Your task to perform on an android device: What is the news today? Image 0: 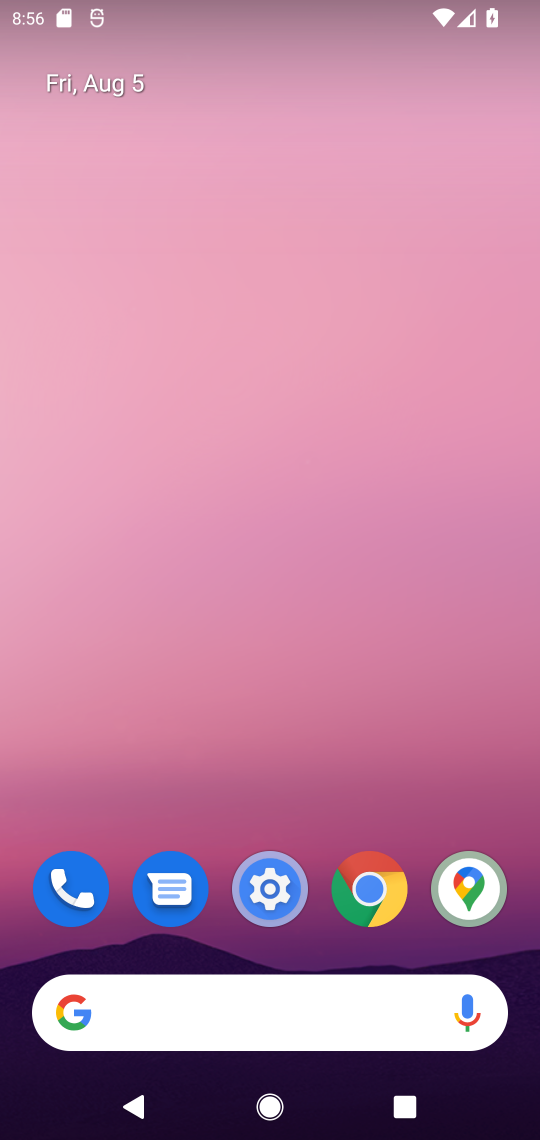
Step 0: drag from (215, 794) to (247, 113)
Your task to perform on an android device: What is the news today? Image 1: 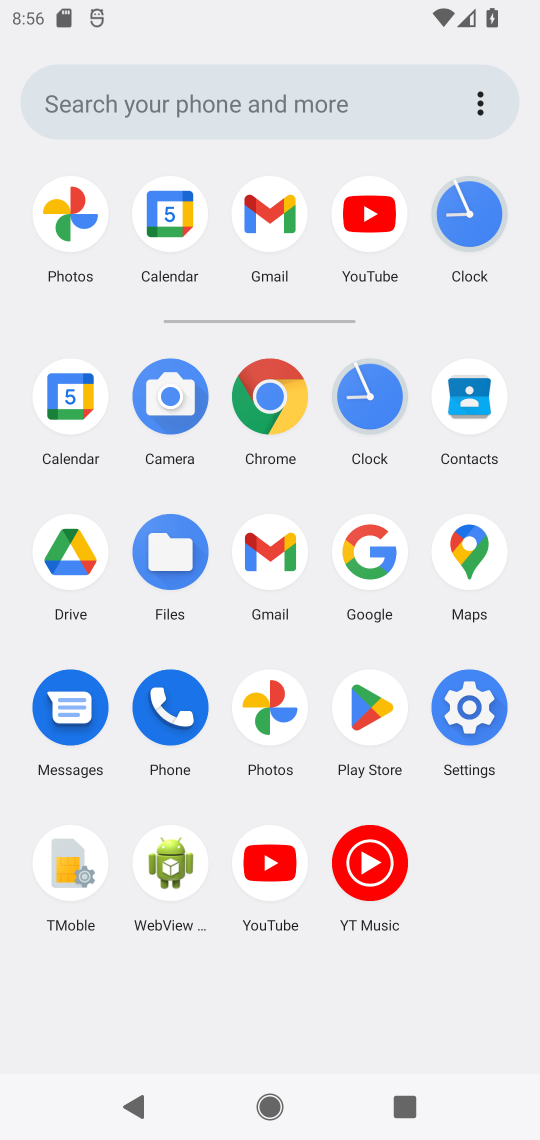
Step 1: click (251, 381)
Your task to perform on an android device: What is the news today? Image 2: 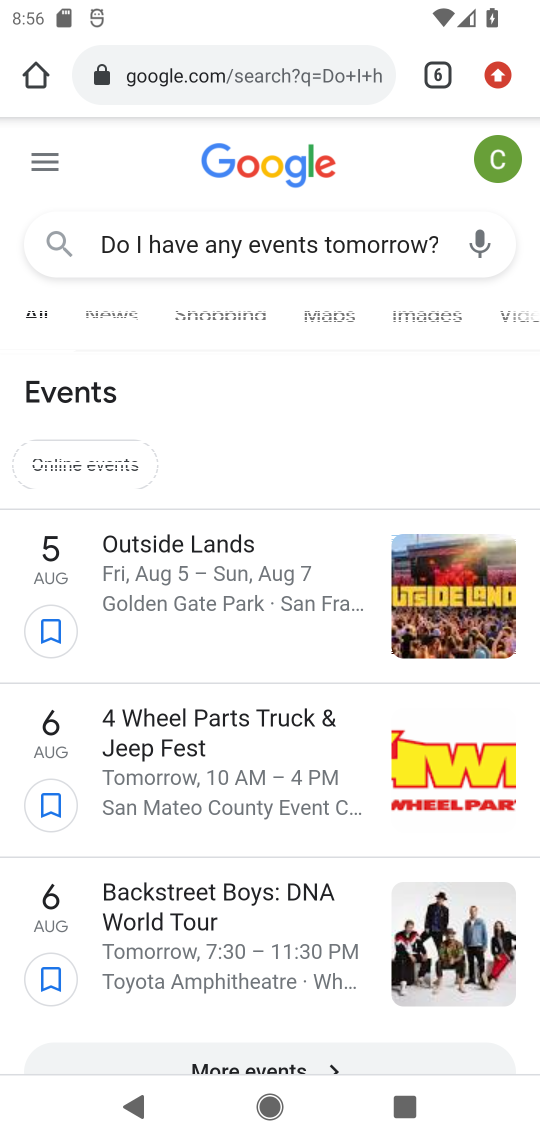
Step 2: click (510, 69)
Your task to perform on an android device: What is the news today? Image 3: 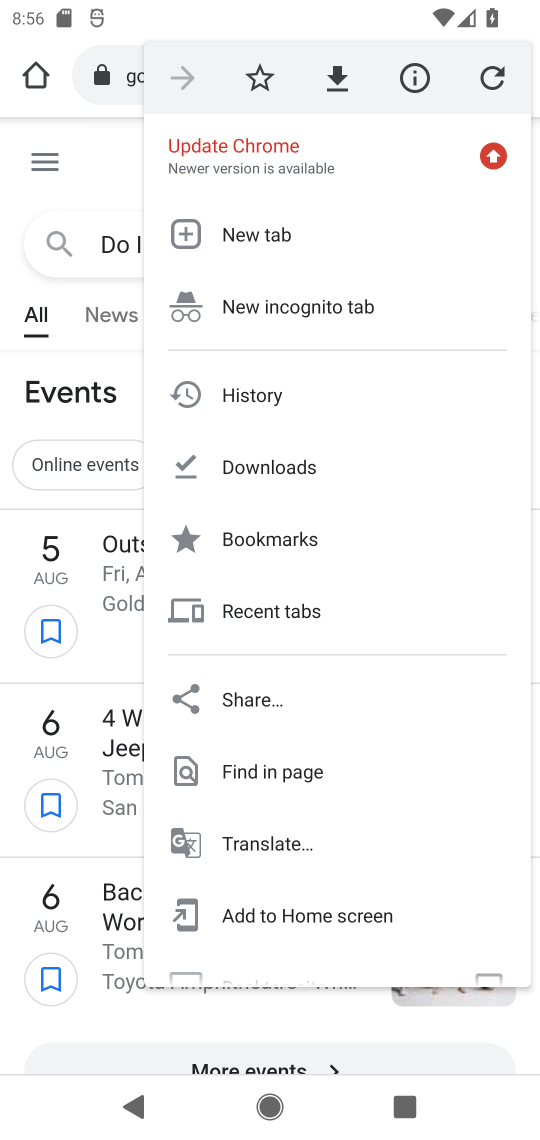
Step 3: click (263, 240)
Your task to perform on an android device: What is the news today? Image 4: 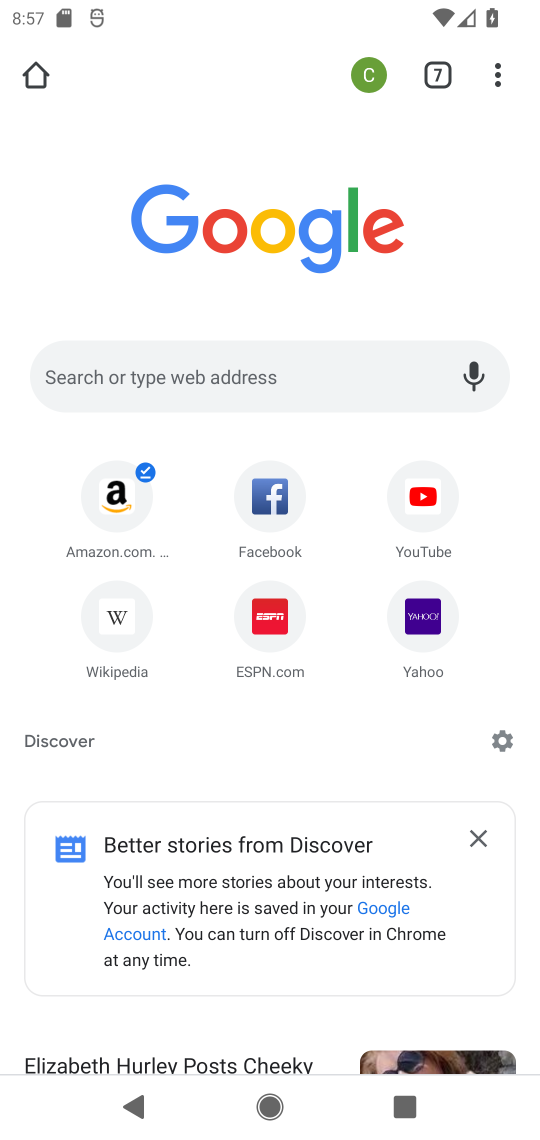
Step 4: click (317, 361)
Your task to perform on an android device: What is the news today? Image 5: 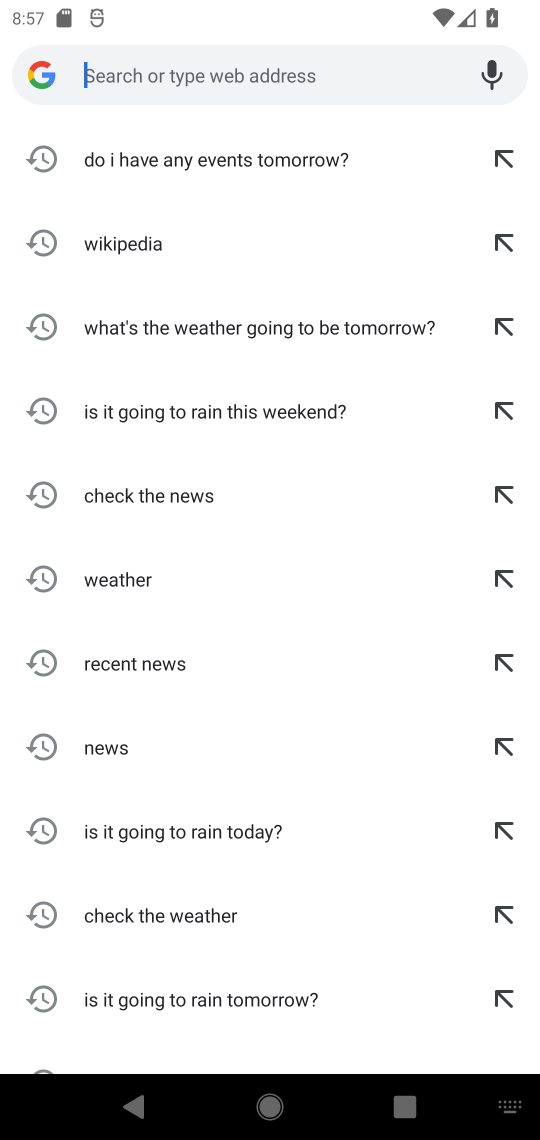
Step 5: type "What is the news today? "
Your task to perform on an android device: What is the news today? Image 6: 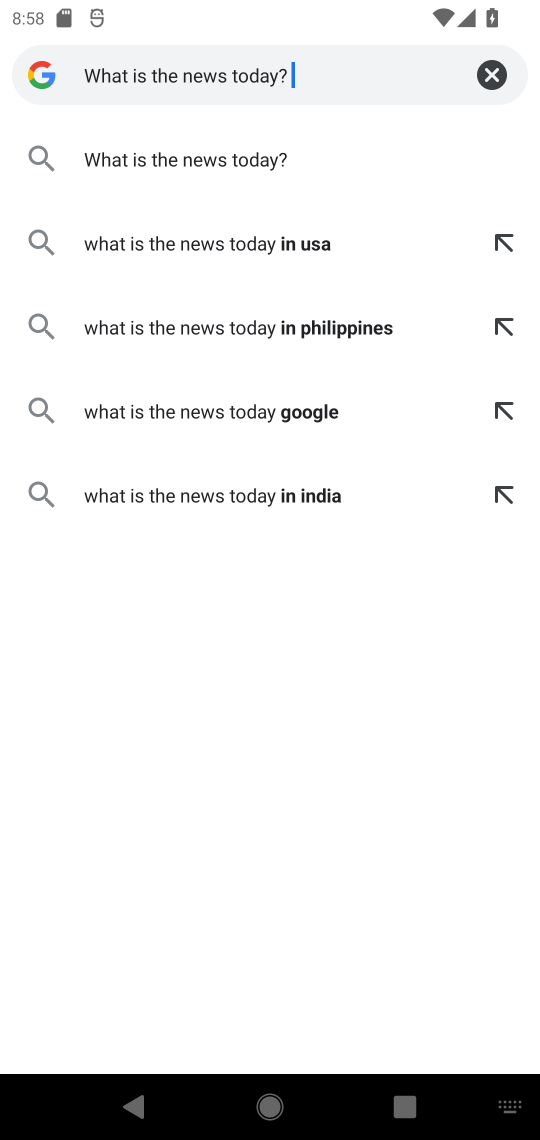
Step 6: click (178, 149)
Your task to perform on an android device: What is the news today? Image 7: 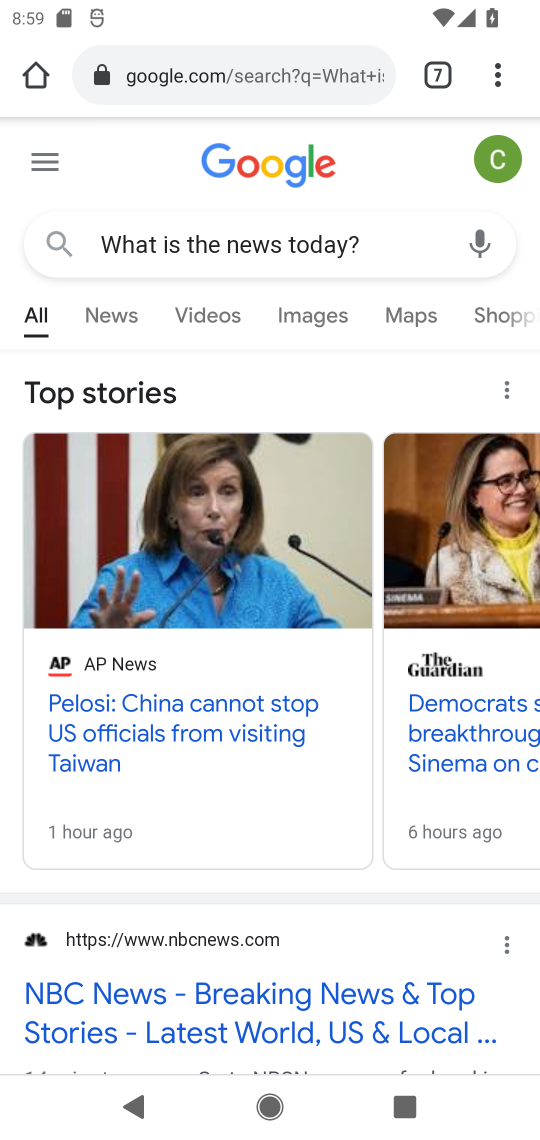
Step 7: task complete